Your task to perform on an android device: turn notification dots on Image 0: 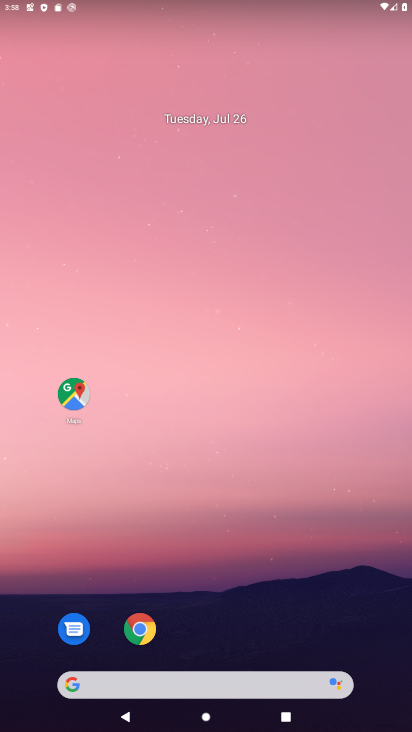
Step 0: drag from (277, 637) to (231, 69)
Your task to perform on an android device: turn notification dots on Image 1: 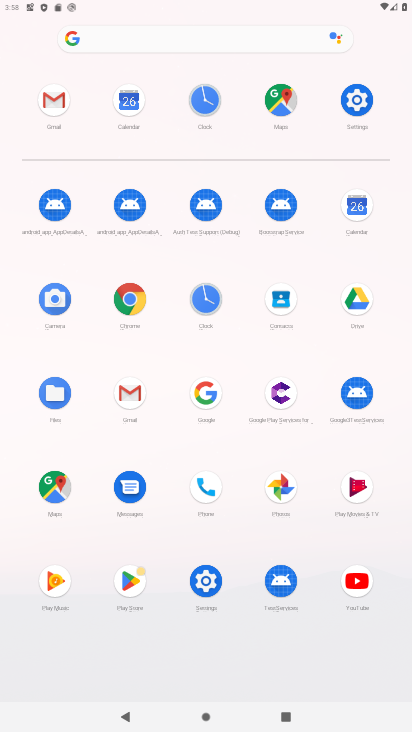
Step 1: click (203, 596)
Your task to perform on an android device: turn notification dots on Image 2: 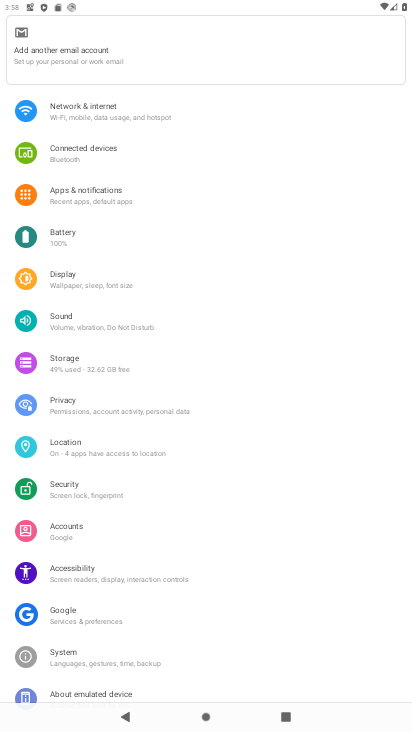
Step 2: click (133, 187)
Your task to perform on an android device: turn notification dots on Image 3: 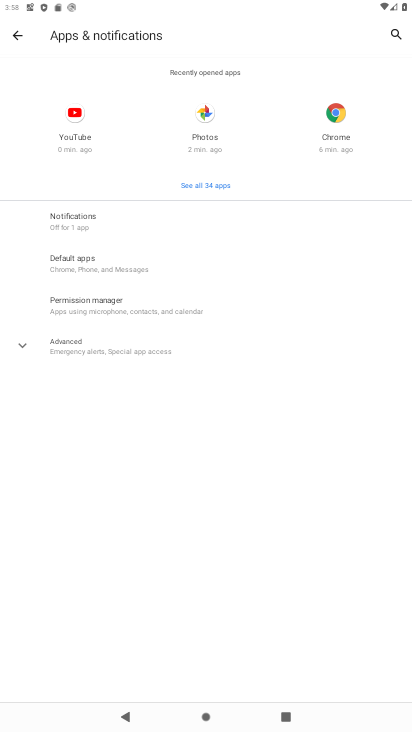
Step 3: click (139, 213)
Your task to perform on an android device: turn notification dots on Image 4: 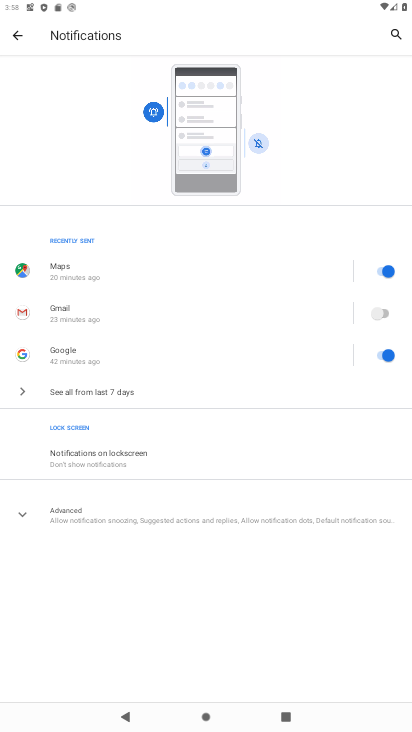
Step 4: click (97, 521)
Your task to perform on an android device: turn notification dots on Image 5: 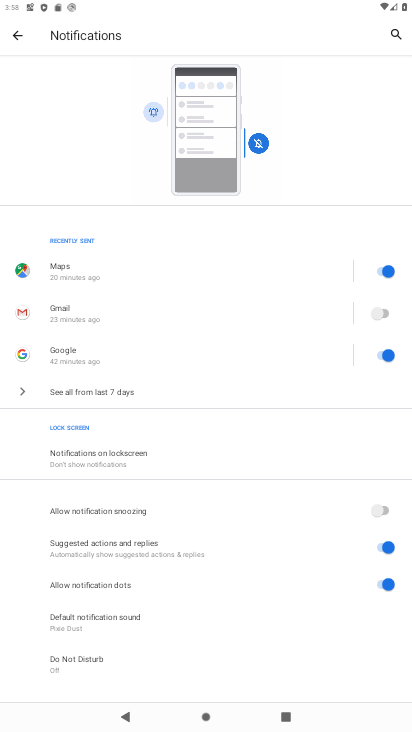
Step 5: task complete